Your task to perform on an android device: Open sound settings Image 0: 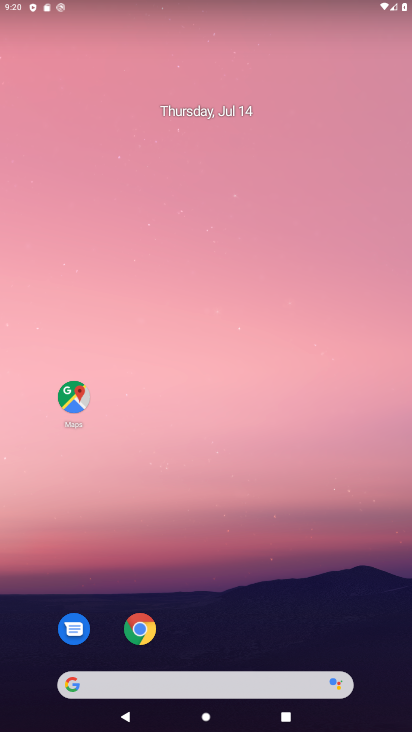
Step 0: drag from (233, 608) to (242, 101)
Your task to perform on an android device: Open sound settings Image 1: 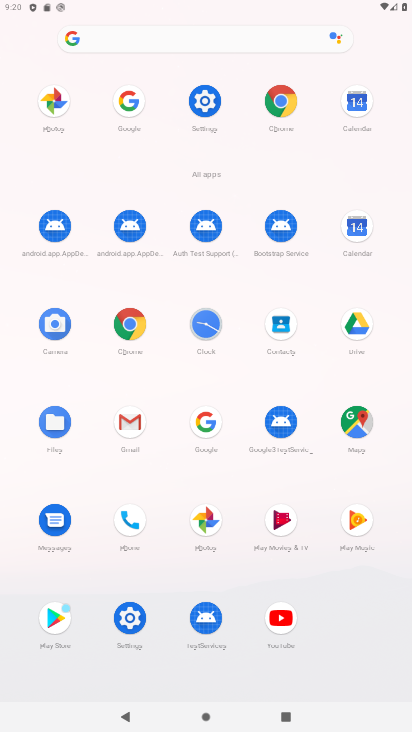
Step 1: click (208, 100)
Your task to perform on an android device: Open sound settings Image 2: 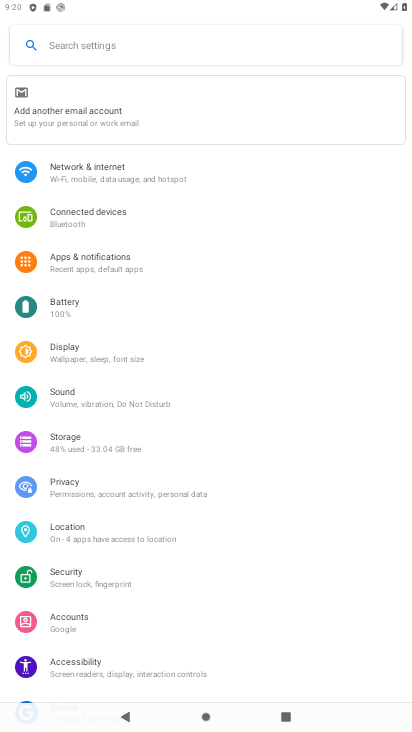
Step 2: click (74, 389)
Your task to perform on an android device: Open sound settings Image 3: 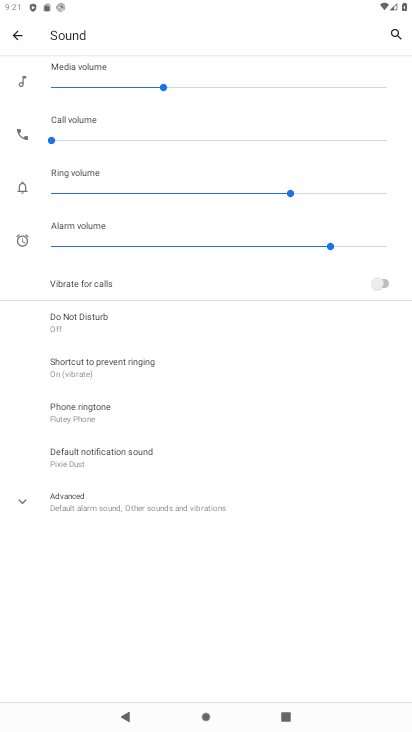
Step 3: task complete